Your task to perform on an android device: Open eBay Image 0: 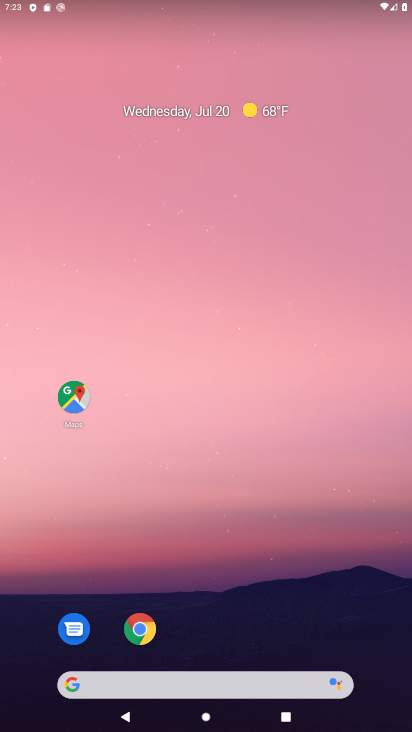
Step 0: drag from (342, 596) to (380, 148)
Your task to perform on an android device: Open eBay Image 1: 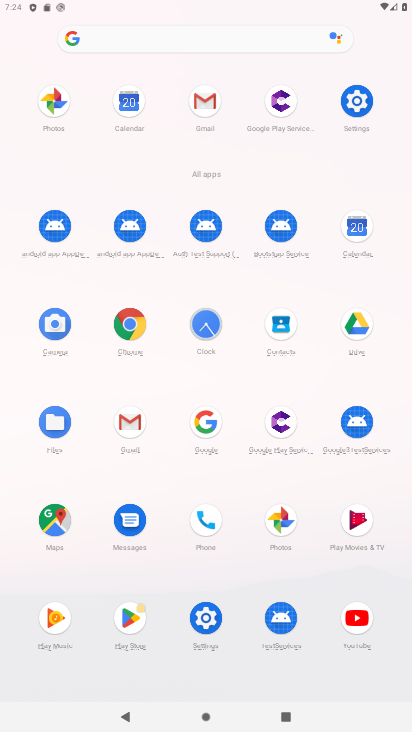
Step 1: click (131, 320)
Your task to perform on an android device: Open eBay Image 2: 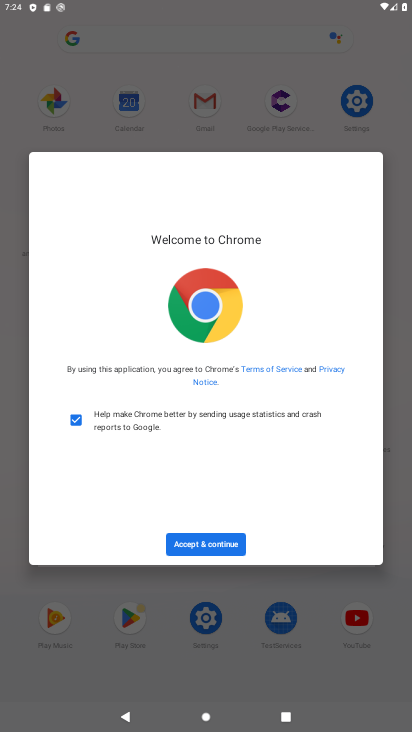
Step 2: click (196, 543)
Your task to perform on an android device: Open eBay Image 3: 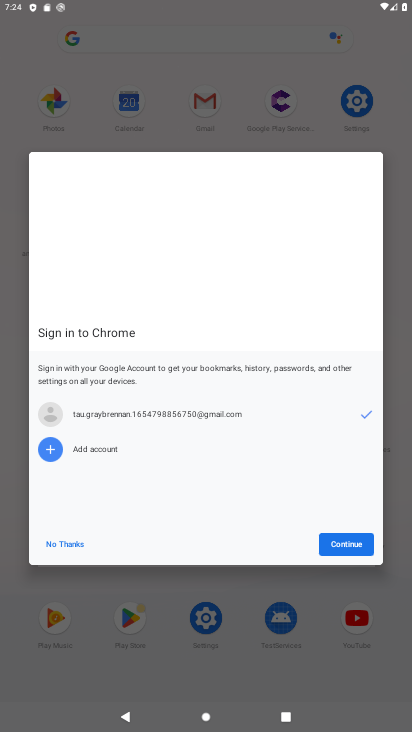
Step 3: click (334, 540)
Your task to perform on an android device: Open eBay Image 4: 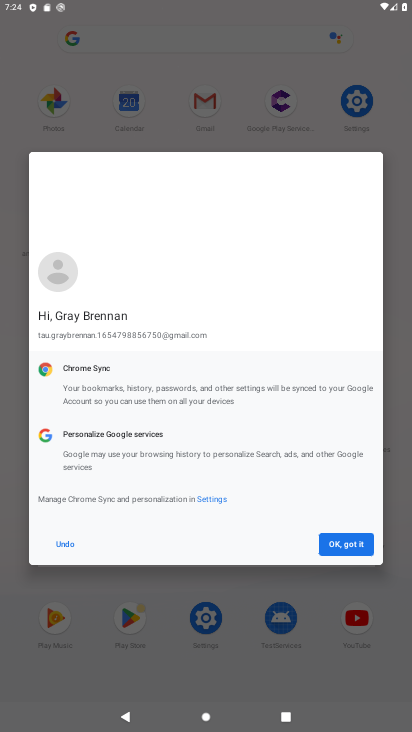
Step 4: click (334, 540)
Your task to perform on an android device: Open eBay Image 5: 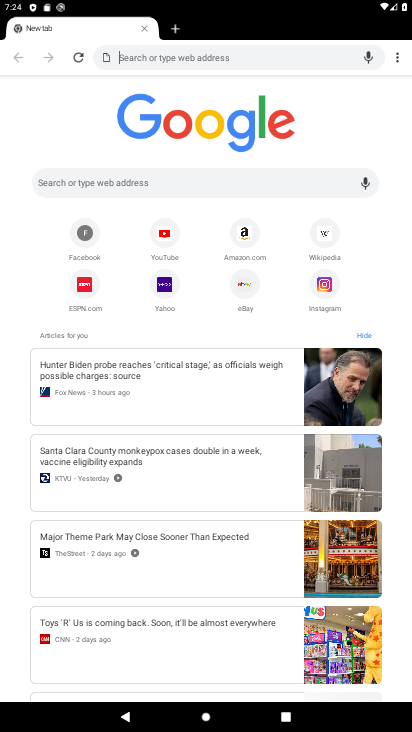
Step 5: click (270, 176)
Your task to perform on an android device: Open eBay Image 6: 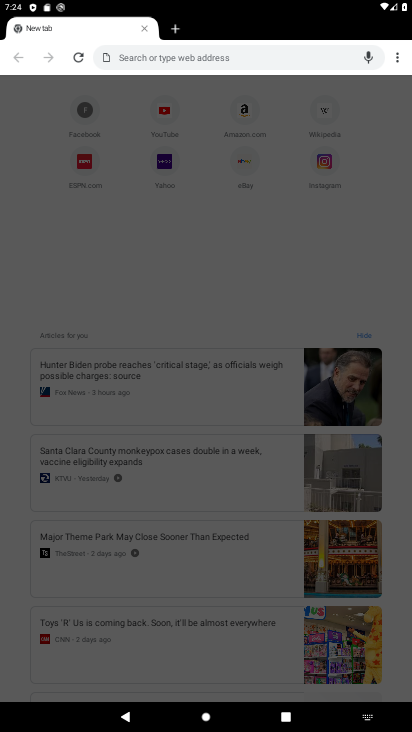
Step 6: type "ebay"
Your task to perform on an android device: Open eBay Image 7: 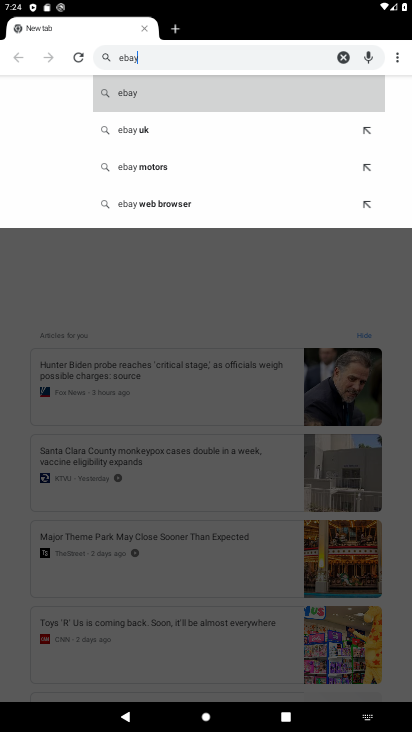
Step 7: click (233, 93)
Your task to perform on an android device: Open eBay Image 8: 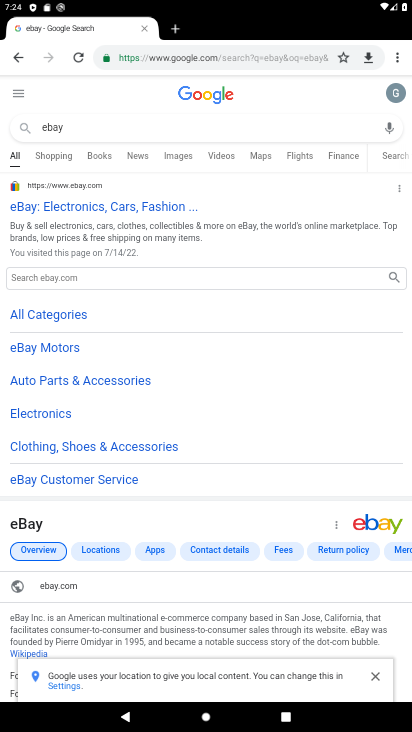
Step 8: task complete